Your task to perform on an android device: turn off location history Image 0: 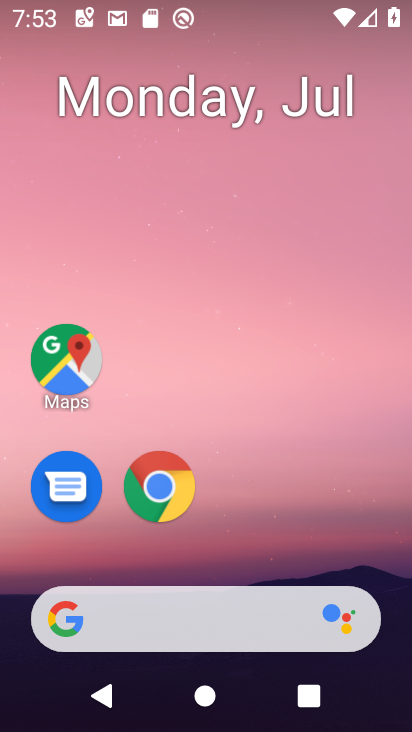
Step 0: drag from (352, 546) to (368, 124)
Your task to perform on an android device: turn off location history Image 1: 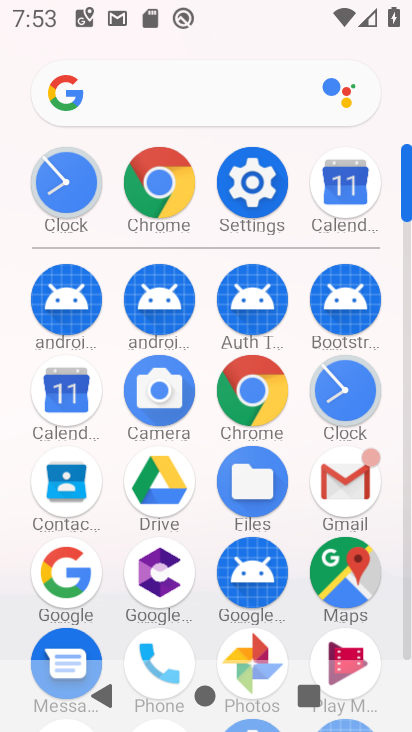
Step 1: click (256, 189)
Your task to perform on an android device: turn off location history Image 2: 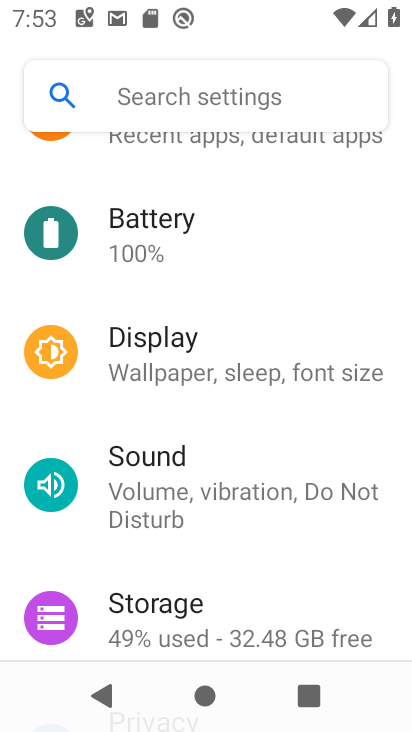
Step 2: drag from (340, 278) to (337, 192)
Your task to perform on an android device: turn off location history Image 3: 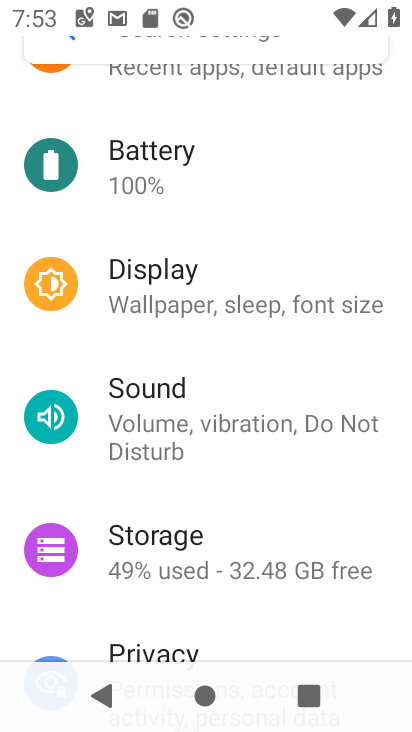
Step 3: drag from (342, 257) to (357, 176)
Your task to perform on an android device: turn off location history Image 4: 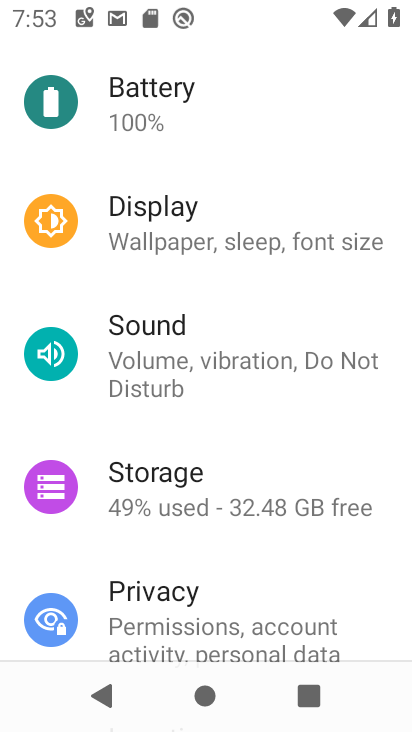
Step 4: drag from (354, 288) to (358, 203)
Your task to perform on an android device: turn off location history Image 5: 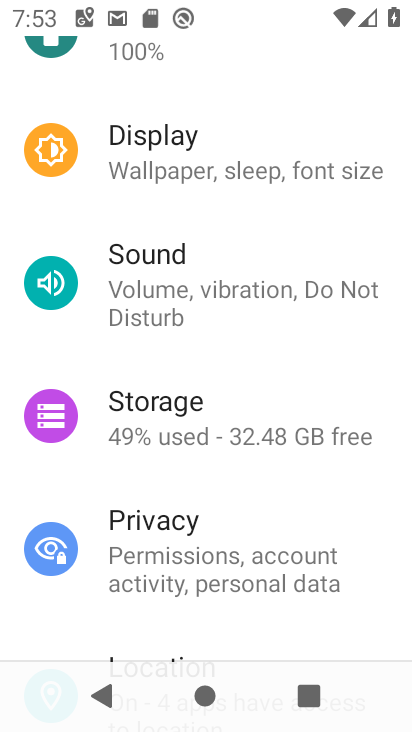
Step 5: drag from (375, 306) to (381, 215)
Your task to perform on an android device: turn off location history Image 6: 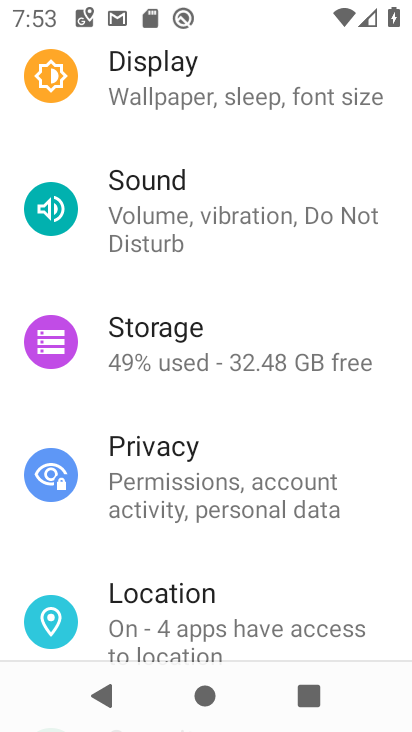
Step 6: drag from (369, 295) to (371, 232)
Your task to perform on an android device: turn off location history Image 7: 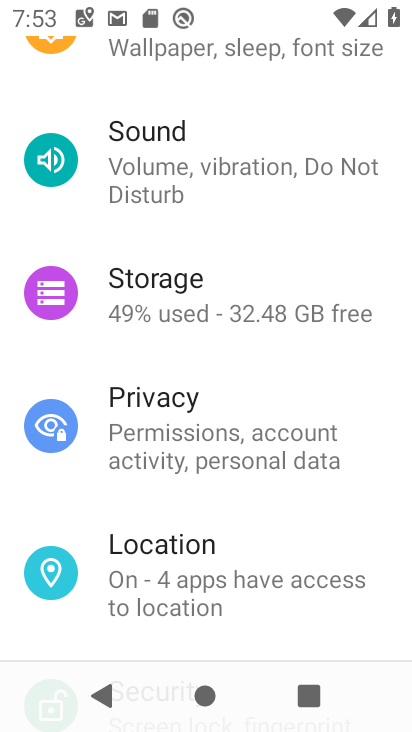
Step 7: drag from (368, 342) to (372, 254)
Your task to perform on an android device: turn off location history Image 8: 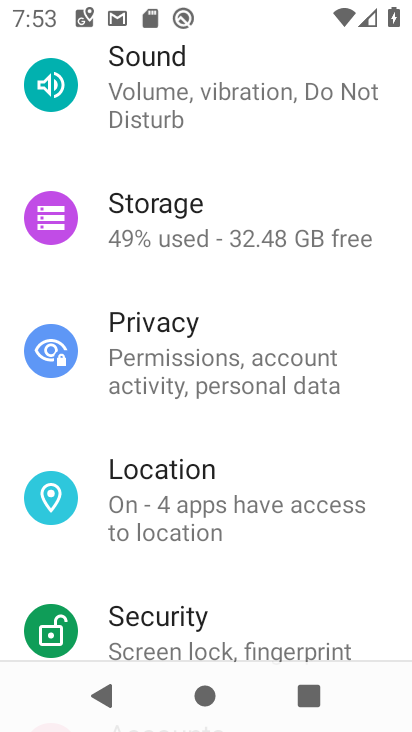
Step 8: drag from (364, 375) to (363, 281)
Your task to perform on an android device: turn off location history Image 9: 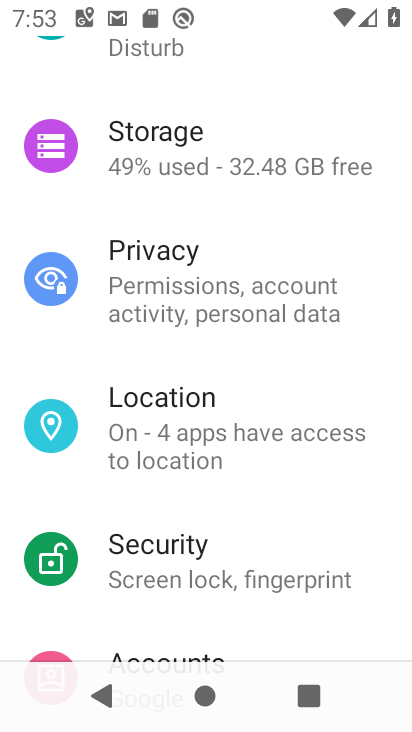
Step 9: drag from (364, 342) to (368, 269)
Your task to perform on an android device: turn off location history Image 10: 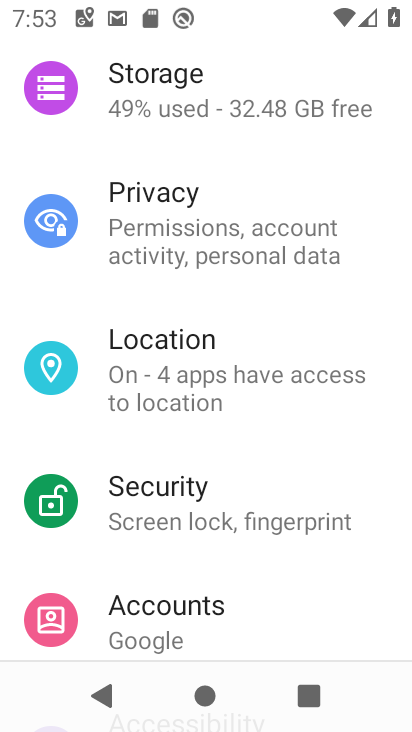
Step 10: click (350, 366)
Your task to perform on an android device: turn off location history Image 11: 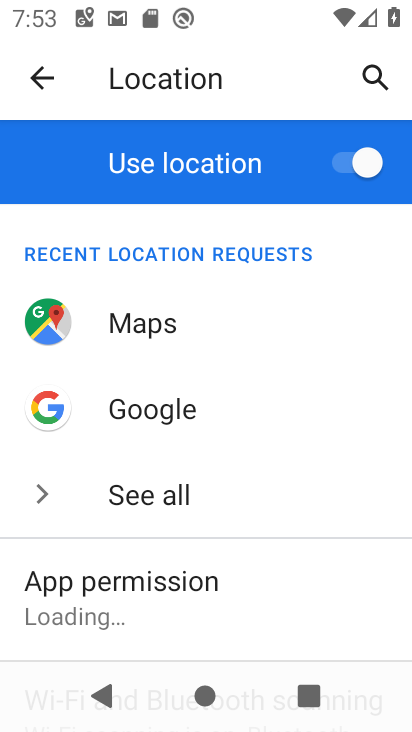
Step 11: drag from (348, 463) to (351, 358)
Your task to perform on an android device: turn off location history Image 12: 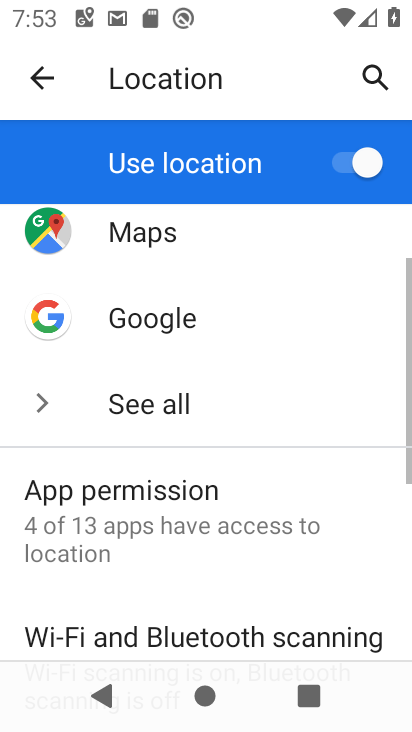
Step 12: drag from (346, 420) to (345, 316)
Your task to perform on an android device: turn off location history Image 13: 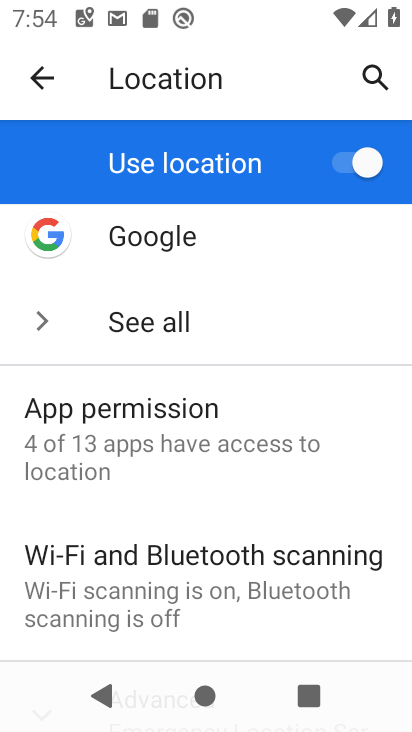
Step 13: drag from (344, 446) to (358, 333)
Your task to perform on an android device: turn off location history Image 14: 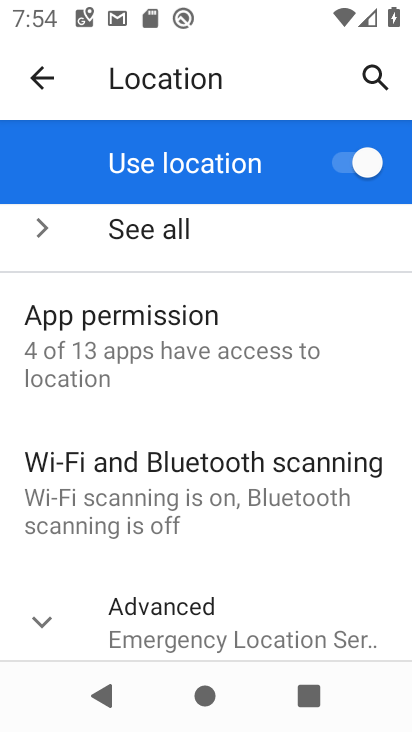
Step 14: drag from (370, 512) to (365, 368)
Your task to perform on an android device: turn off location history Image 15: 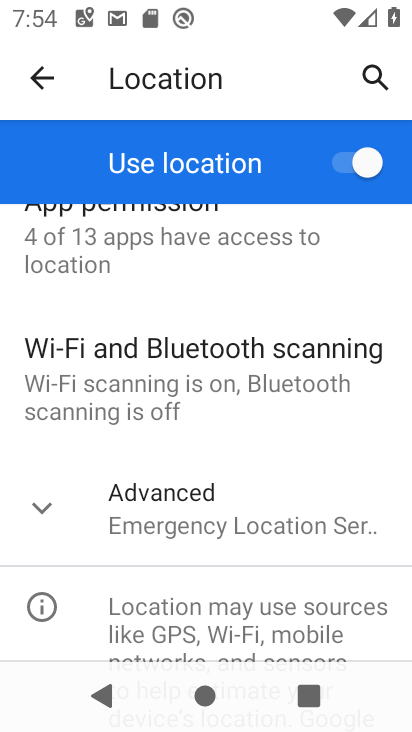
Step 15: click (364, 549)
Your task to perform on an android device: turn off location history Image 16: 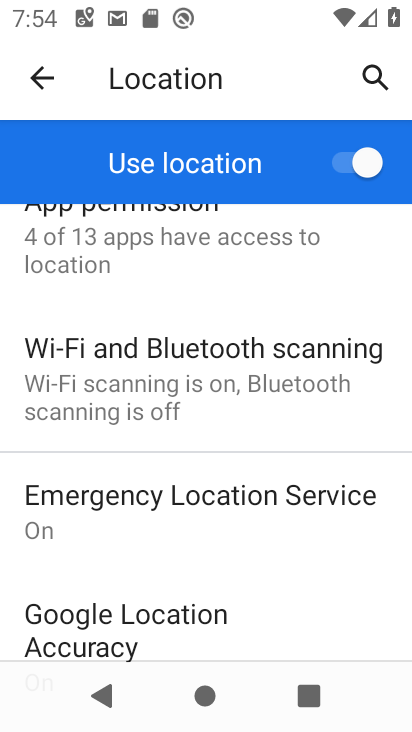
Step 16: task complete